Your task to perform on an android device: Open Wikipedia Image 0: 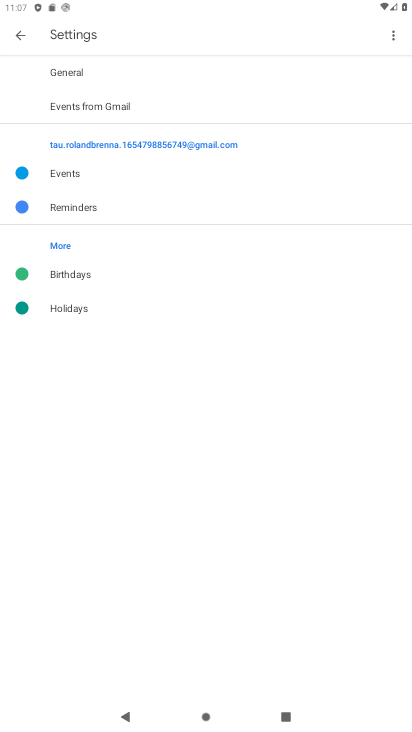
Step 0: press home button
Your task to perform on an android device: Open Wikipedia Image 1: 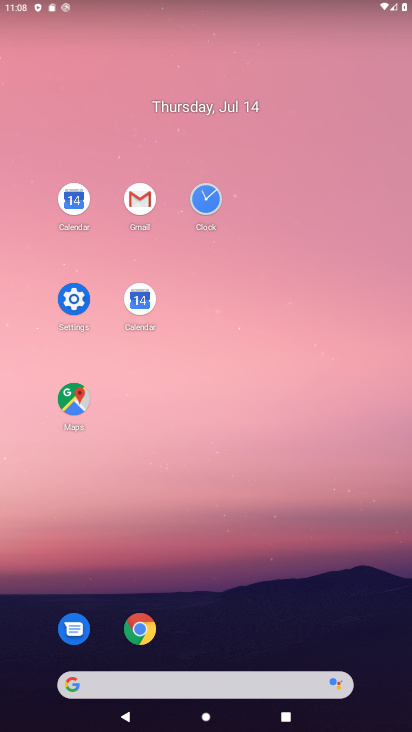
Step 1: click (138, 614)
Your task to perform on an android device: Open Wikipedia Image 2: 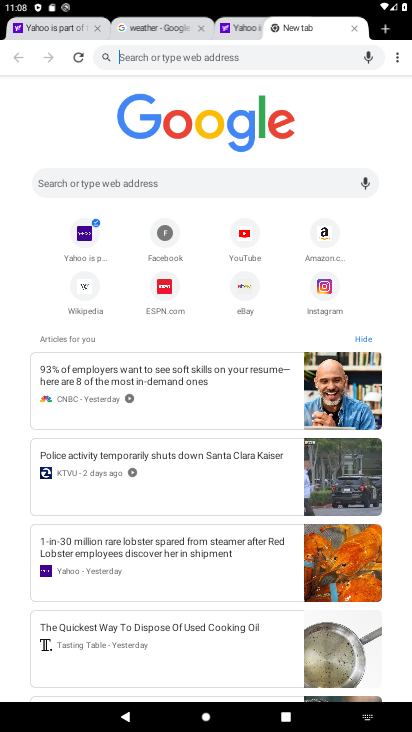
Step 2: click (385, 30)
Your task to perform on an android device: Open Wikipedia Image 3: 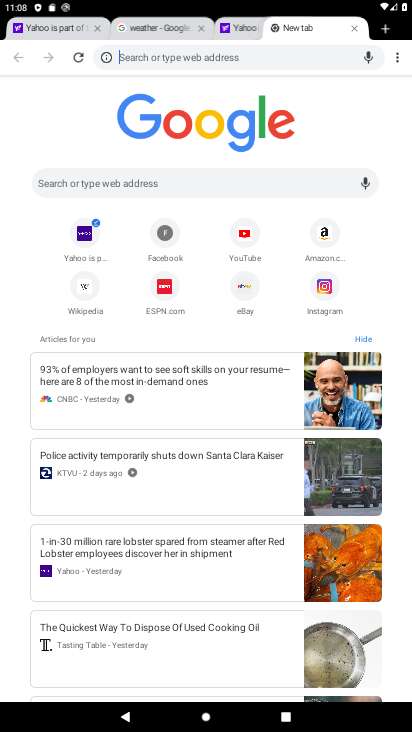
Step 3: click (85, 291)
Your task to perform on an android device: Open Wikipedia Image 4: 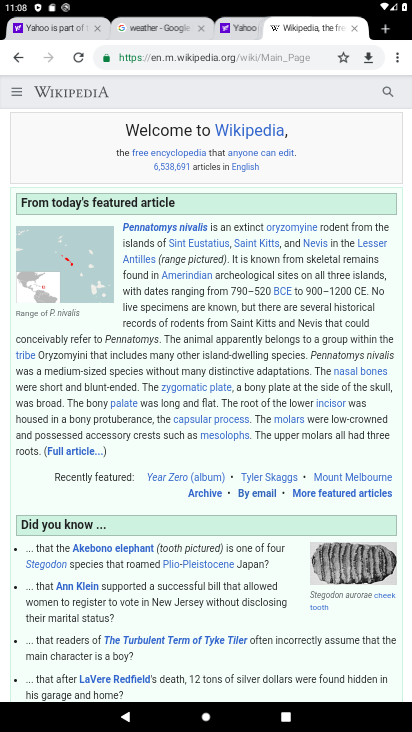
Step 4: task complete